Your task to perform on an android device: Open notification settings Image 0: 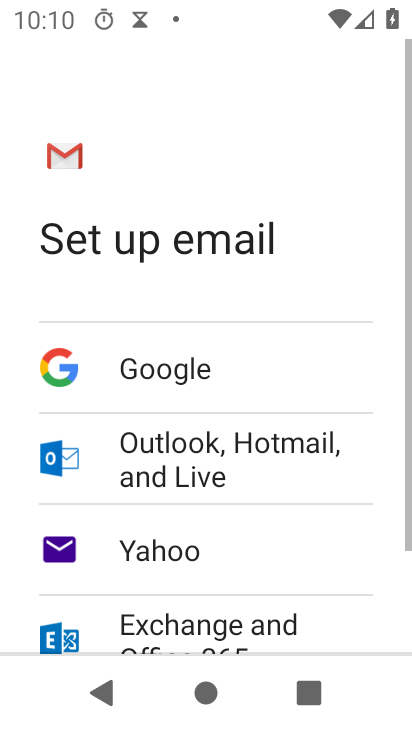
Step 0: press home button
Your task to perform on an android device: Open notification settings Image 1: 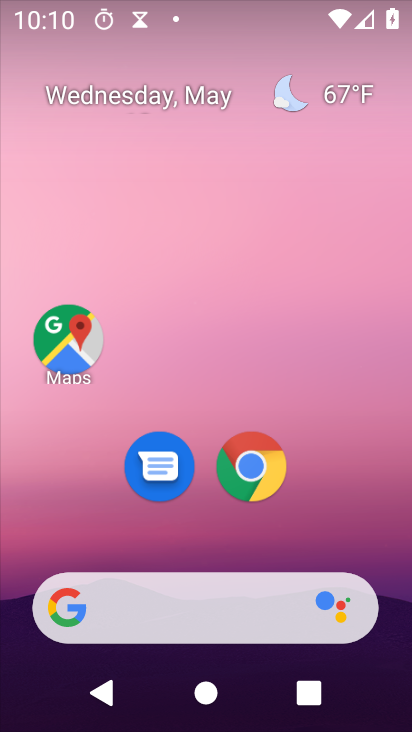
Step 1: drag from (372, 670) to (311, 269)
Your task to perform on an android device: Open notification settings Image 2: 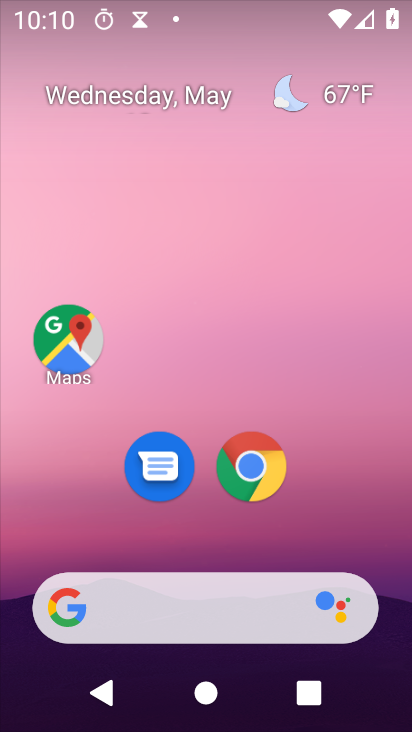
Step 2: drag from (347, 674) to (338, 262)
Your task to perform on an android device: Open notification settings Image 3: 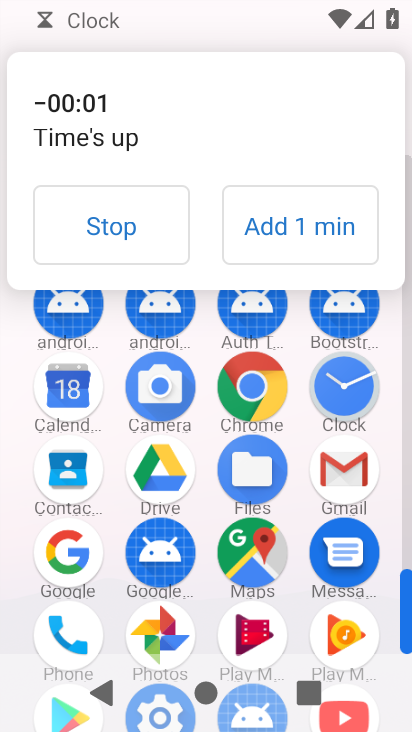
Step 3: click (158, 207)
Your task to perform on an android device: Open notification settings Image 4: 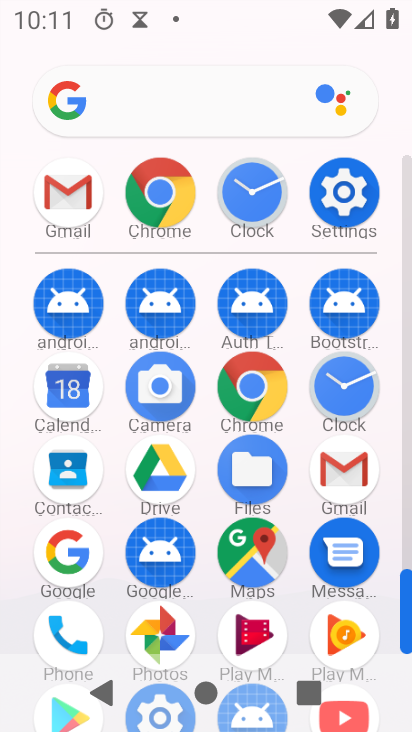
Step 4: click (338, 200)
Your task to perform on an android device: Open notification settings Image 5: 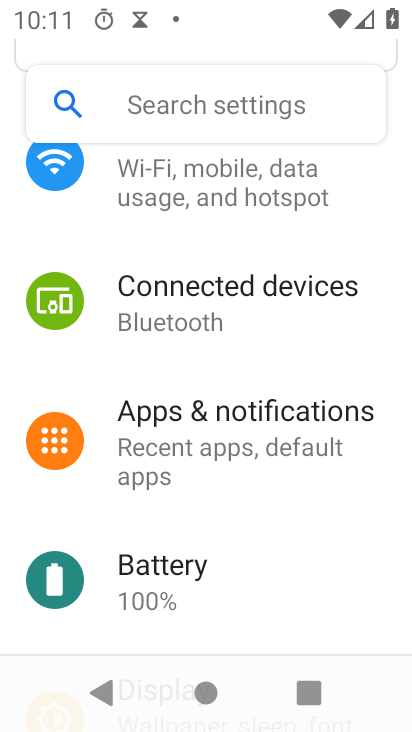
Step 5: click (236, 448)
Your task to perform on an android device: Open notification settings Image 6: 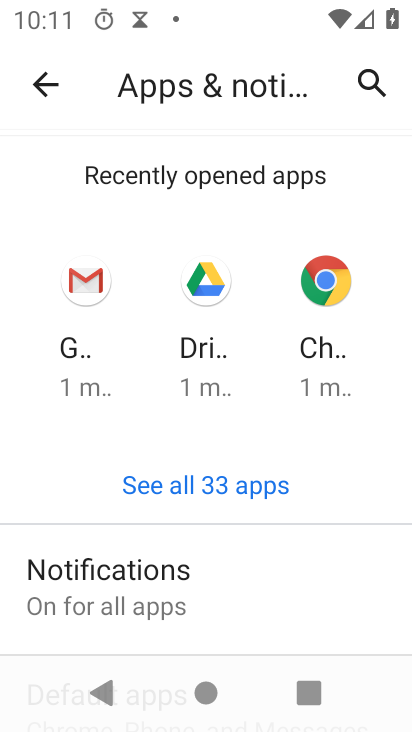
Step 6: click (135, 597)
Your task to perform on an android device: Open notification settings Image 7: 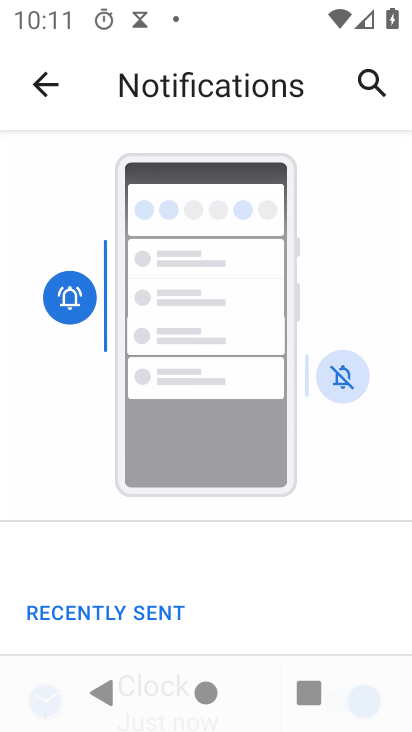
Step 7: drag from (182, 589) to (166, 318)
Your task to perform on an android device: Open notification settings Image 8: 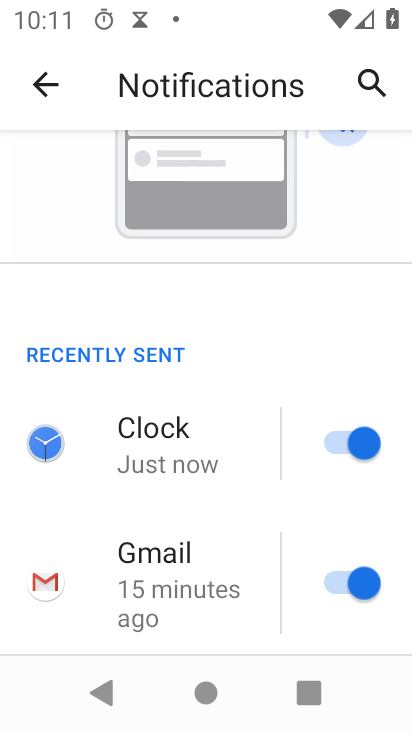
Step 8: drag from (227, 534) to (229, 300)
Your task to perform on an android device: Open notification settings Image 9: 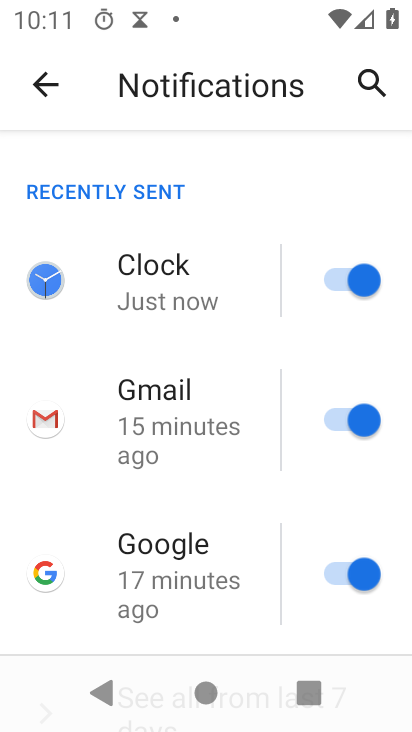
Step 9: drag from (204, 599) to (192, 309)
Your task to perform on an android device: Open notification settings Image 10: 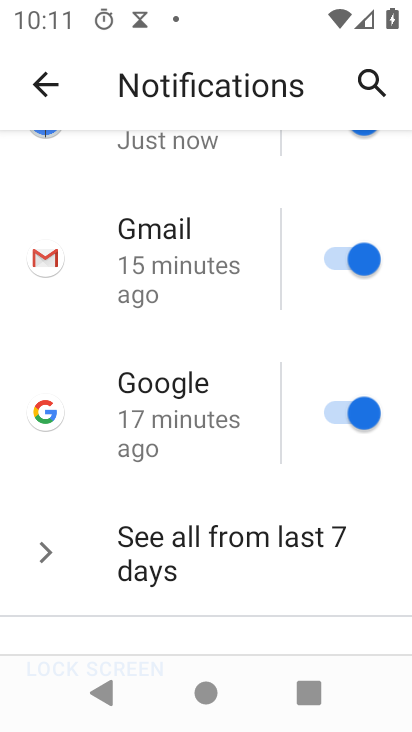
Step 10: drag from (232, 512) to (233, 314)
Your task to perform on an android device: Open notification settings Image 11: 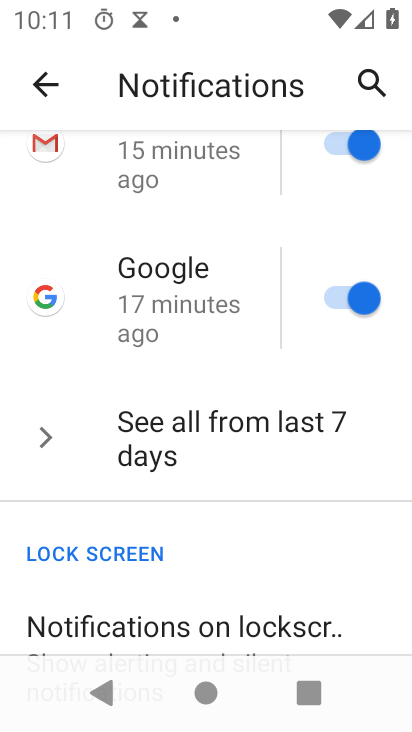
Step 11: click (172, 604)
Your task to perform on an android device: Open notification settings Image 12: 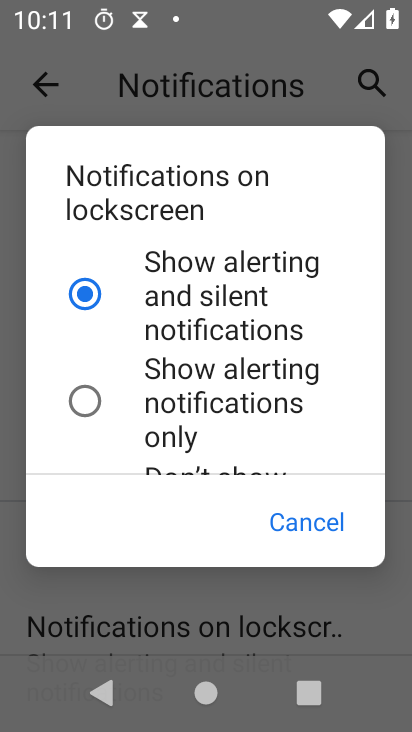
Step 12: task complete